Your task to perform on an android device: toggle notification dots Image 0: 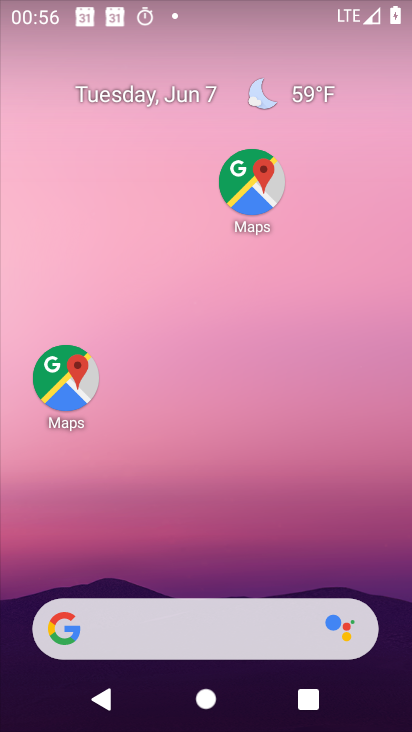
Step 0: drag from (185, 286) to (171, 86)
Your task to perform on an android device: toggle notification dots Image 1: 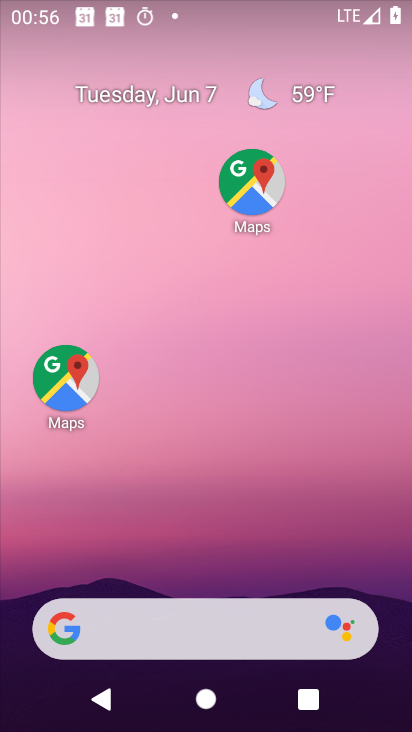
Step 1: drag from (195, 586) to (151, 31)
Your task to perform on an android device: toggle notification dots Image 2: 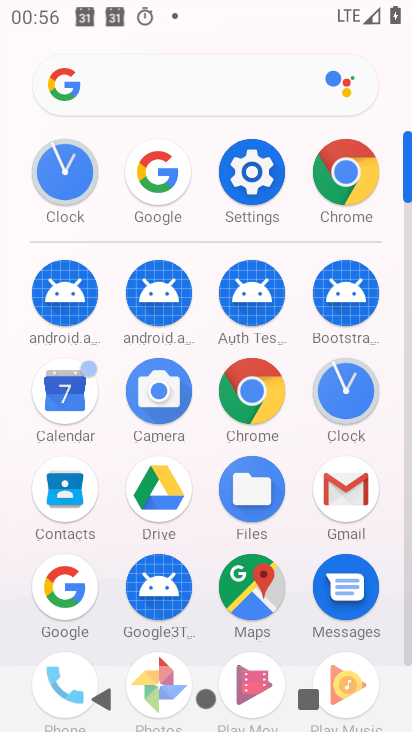
Step 2: click (254, 170)
Your task to perform on an android device: toggle notification dots Image 3: 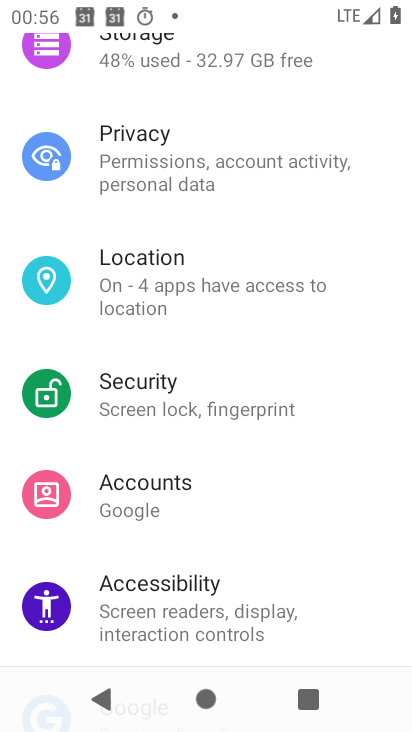
Step 3: drag from (172, 108) to (258, 479)
Your task to perform on an android device: toggle notification dots Image 4: 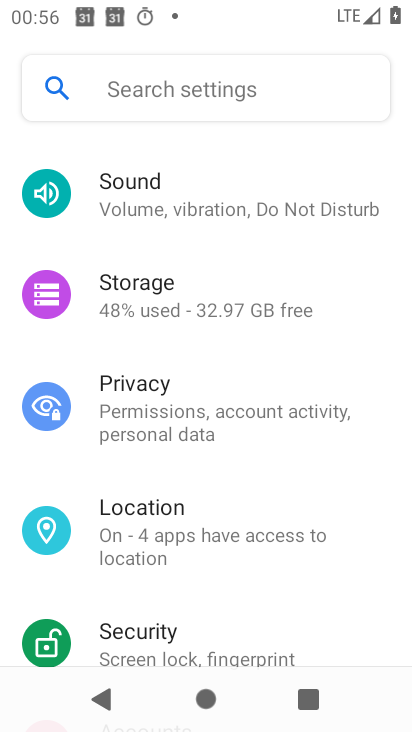
Step 4: drag from (146, 153) to (223, 556)
Your task to perform on an android device: toggle notification dots Image 5: 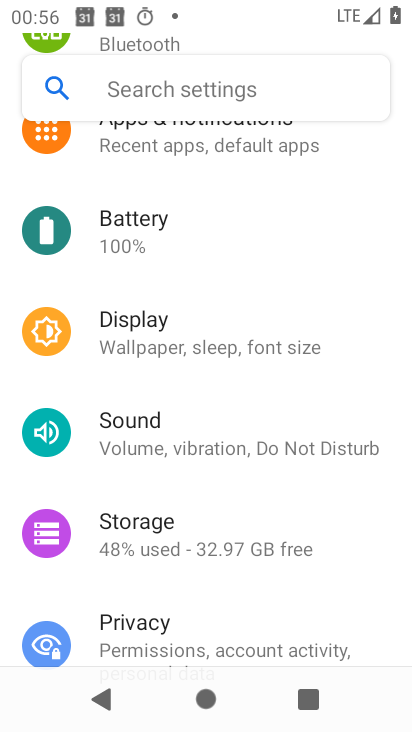
Step 5: drag from (183, 216) to (243, 492)
Your task to perform on an android device: toggle notification dots Image 6: 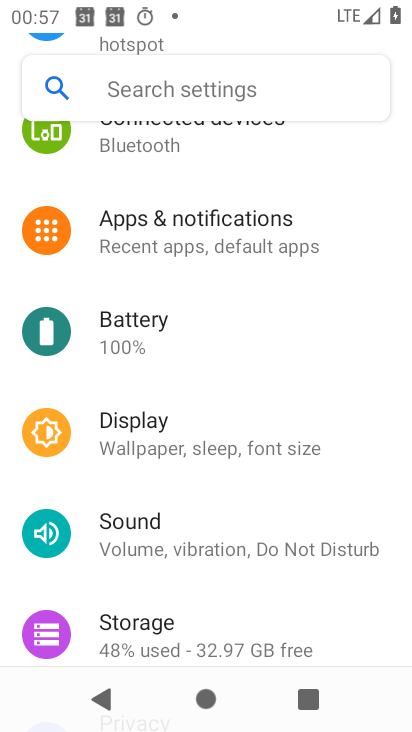
Step 6: click (215, 196)
Your task to perform on an android device: toggle notification dots Image 7: 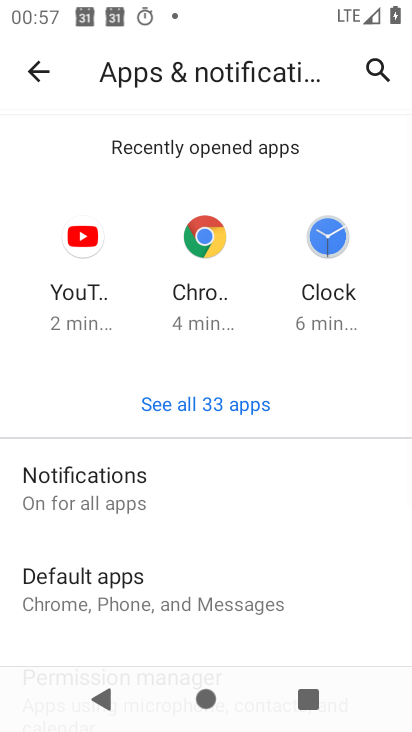
Step 7: click (104, 509)
Your task to perform on an android device: toggle notification dots Image 8: 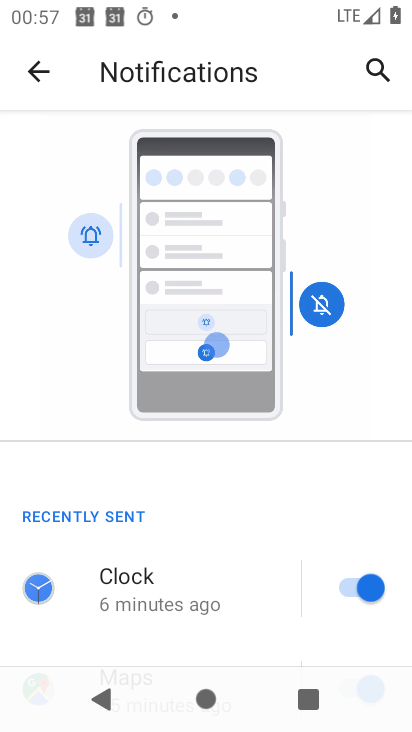
Step 8: drag from (234, 323) to (234, 60)
Your task to perform on an android device: toggle notification dots Image 9: 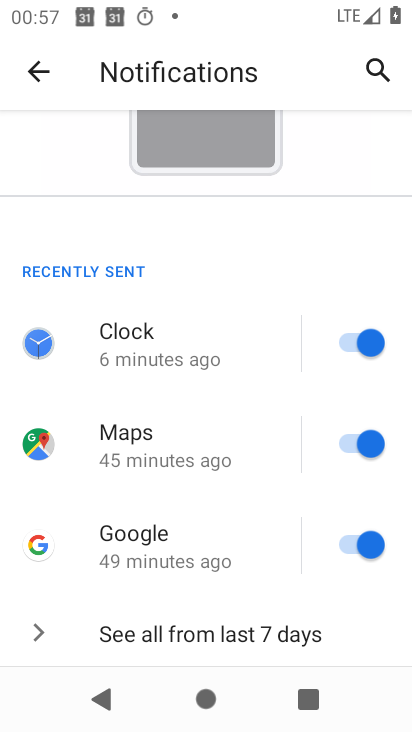
Step 9: drag from (230, 597) to (203, 166)
Your task to perform on an android device: toggle notification dots Image 10: 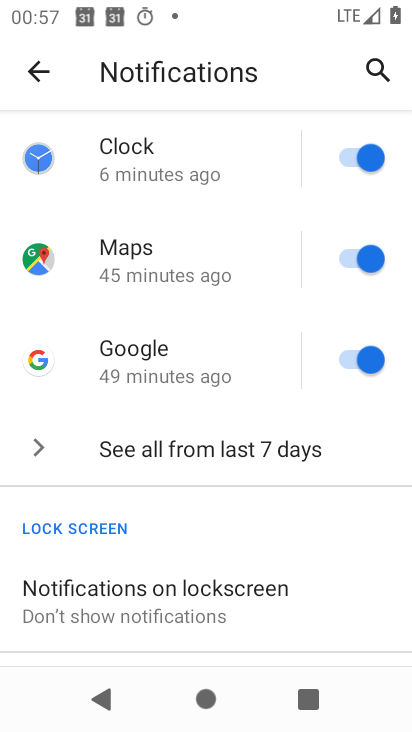
Step 10: drag from (190, 163) to (188, 76)
Your task to perform on an android device: toggle notification dots Image 11: 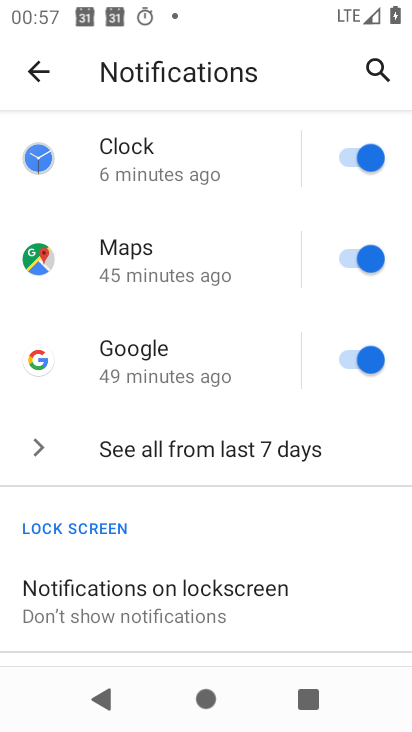
Step 11: drag from (206, 559) to (187, 2)
Your task to perform on an android device: toggle notification dots Image 12: 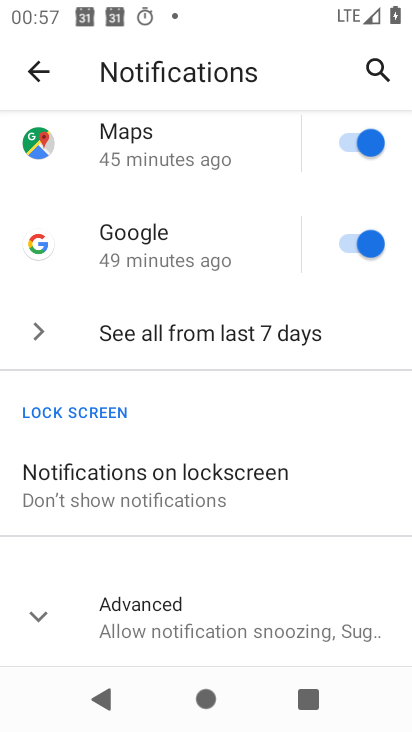
Step 12: click (156, 624)
Your task to perform on an android device: toggle notification dots Image 13: 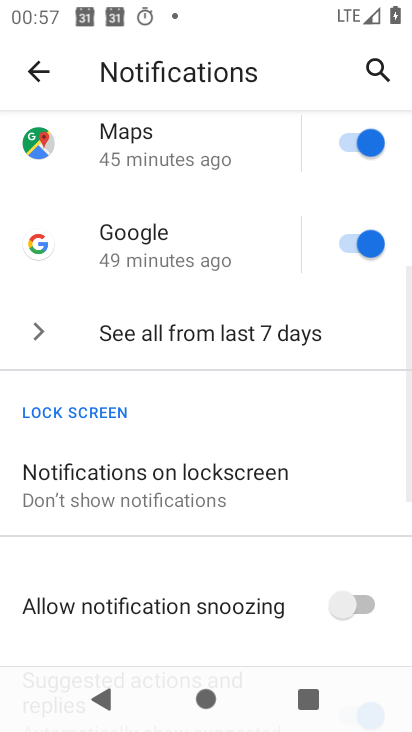
Step 13: drag from (261, 363) to (259, 247)
Your task to perform on an android device: toggle notification dots Image 14: 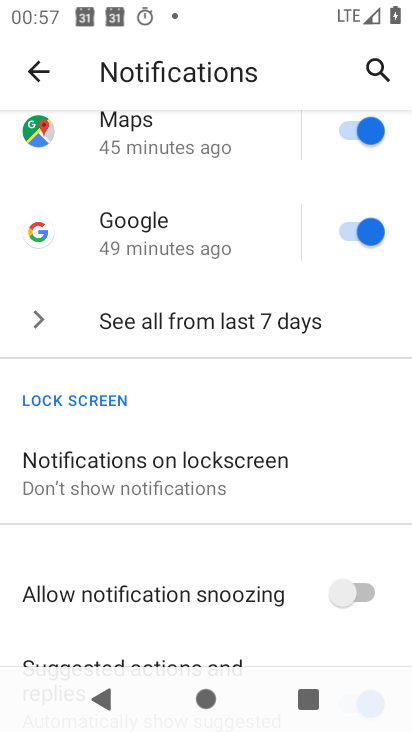
Step 14: drag from (127, 536) to (101, 187)
Your task to perform on an android device: toggle notification dots Image 15: 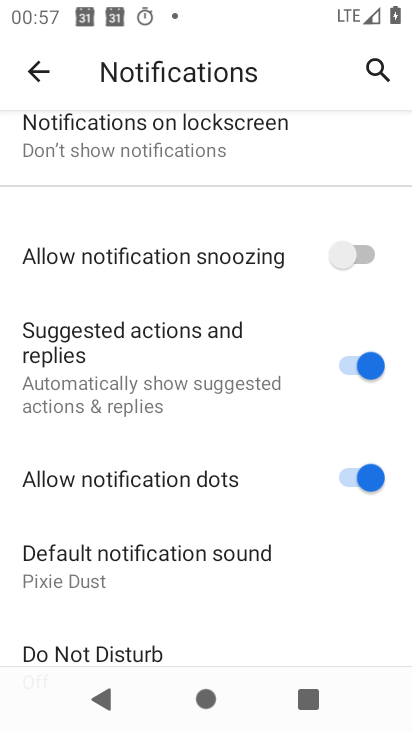
Step 15: click (363, 478)
Your task to perform on an android device: toggle notification dots Image 16: 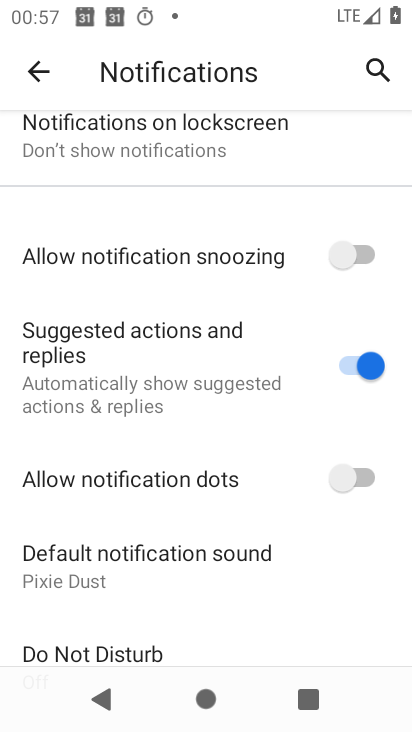
Step 16: task complete